Your task to perform on an android device: Go to wifi settings Image 0: 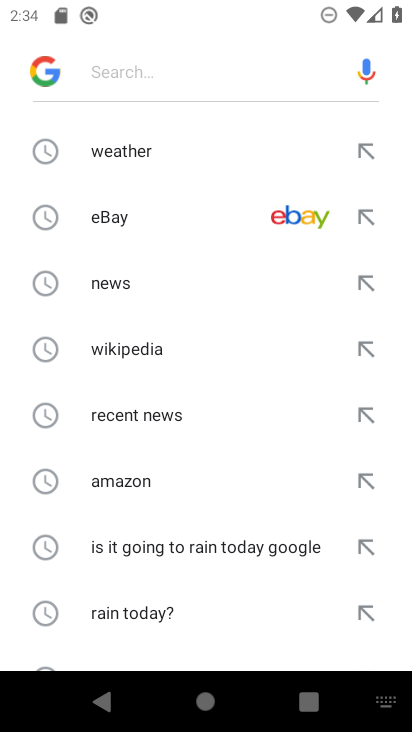
Step 0: press home button
Your task to perform on an android device: Go to wifi settings Image 1: 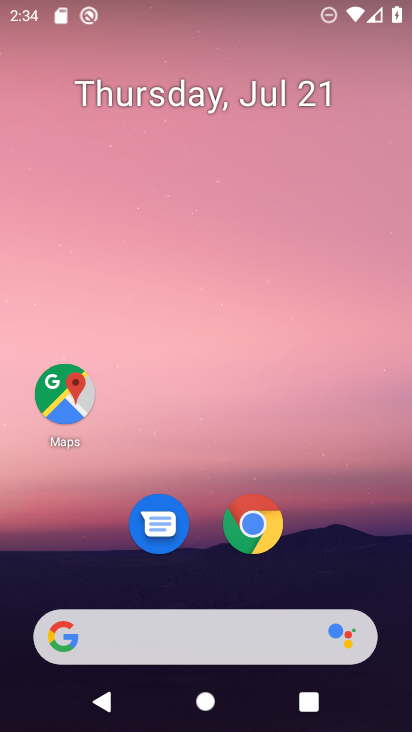
Step 1: drag from (191, 635) to (265, 166)
Your task to perform on an android device: Go to wifi settings Image 2: 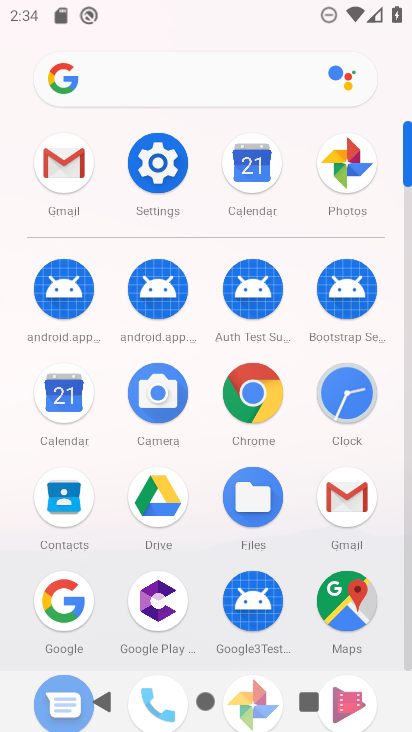
Step 2: click (161, 161)
Your task to perform on an android device: Go to wifi settings Image 3: 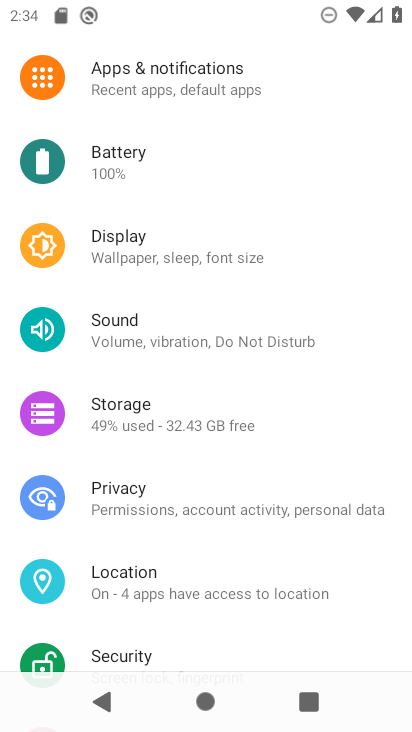
Step 3: drag from (290, 137) to (205, 545)
Your task to perform on an android device: Go to wifi settings Image 4: 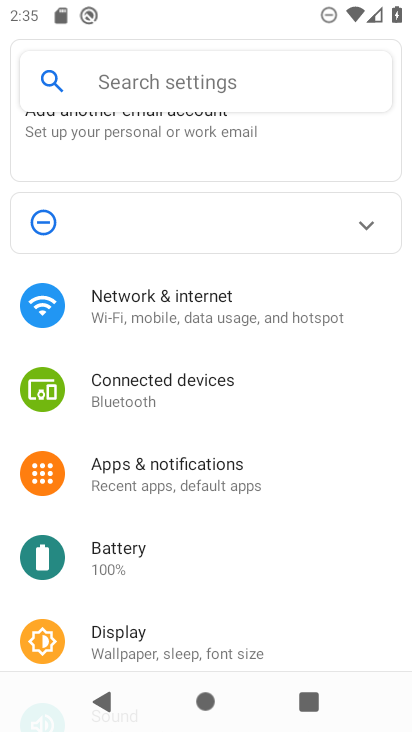
Step 4: click (196, 305)
Your task to perform on an android device: Go to wifi settings Image 5: 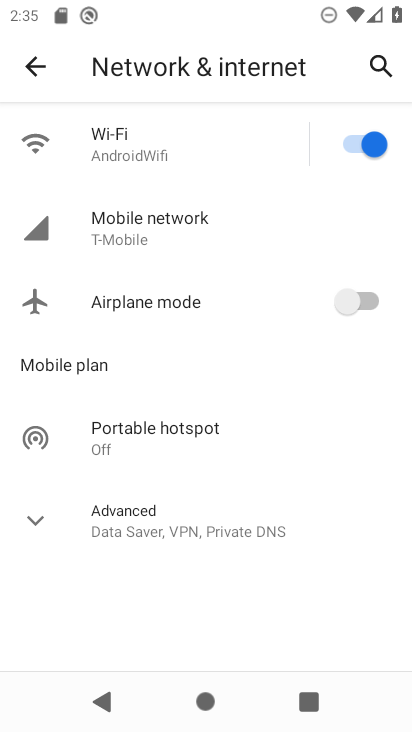
Step 5: click (140, 147)
Your task to perform on an android device: Go to wifi settings Image 6: 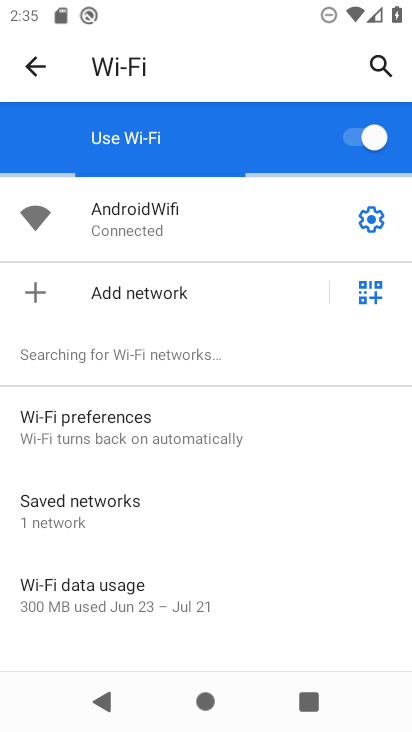
Step 6: task complete